Your task to perform on an android device: When is my next appointment? Image 0: 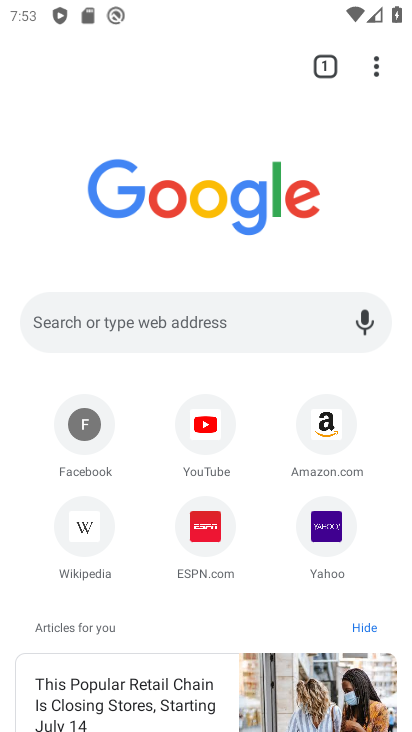
Step 0: press home button
Your task to perform on an android device: When is my next appointment? Image 1: 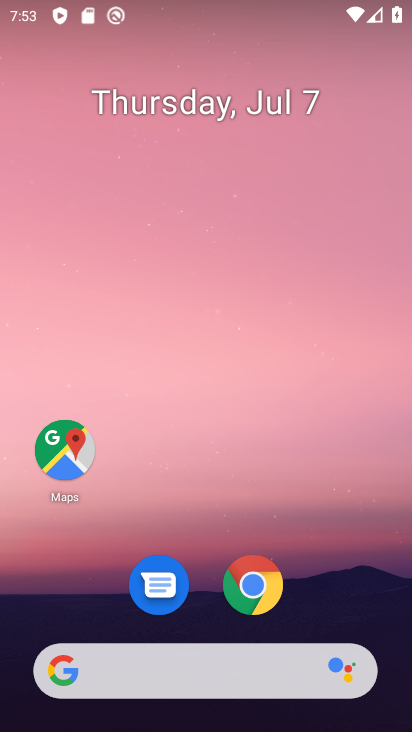
Step 1: drag from (315, 561) to (295, 61)
Your task to perform on an android device: When is my next appointment? Image 2: 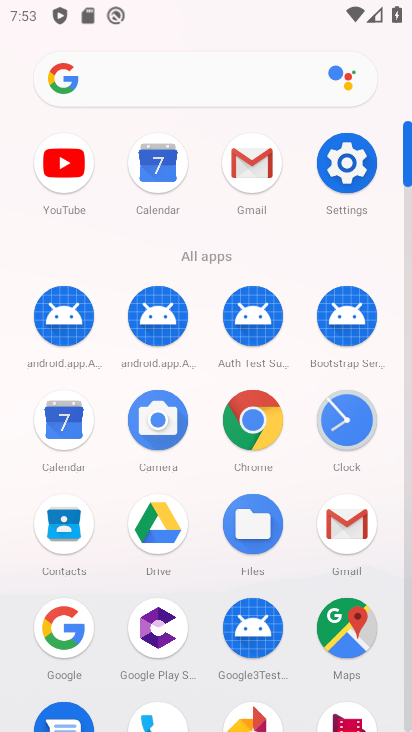
Step 2: click (68, 429)
Your task to perform on an android device: When is my next appointment? Image 3: 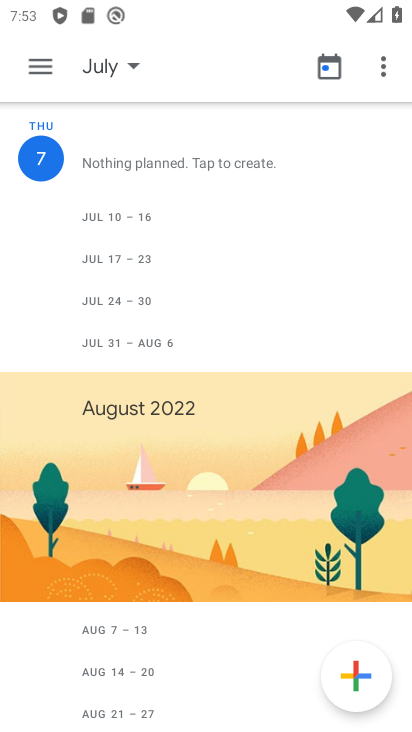
Step 3: task complete